Your task to perform on an android device: Show the shopping cart on bestbuy.com. Add "usb-c" to the cart on bestbuy.com Image 0: 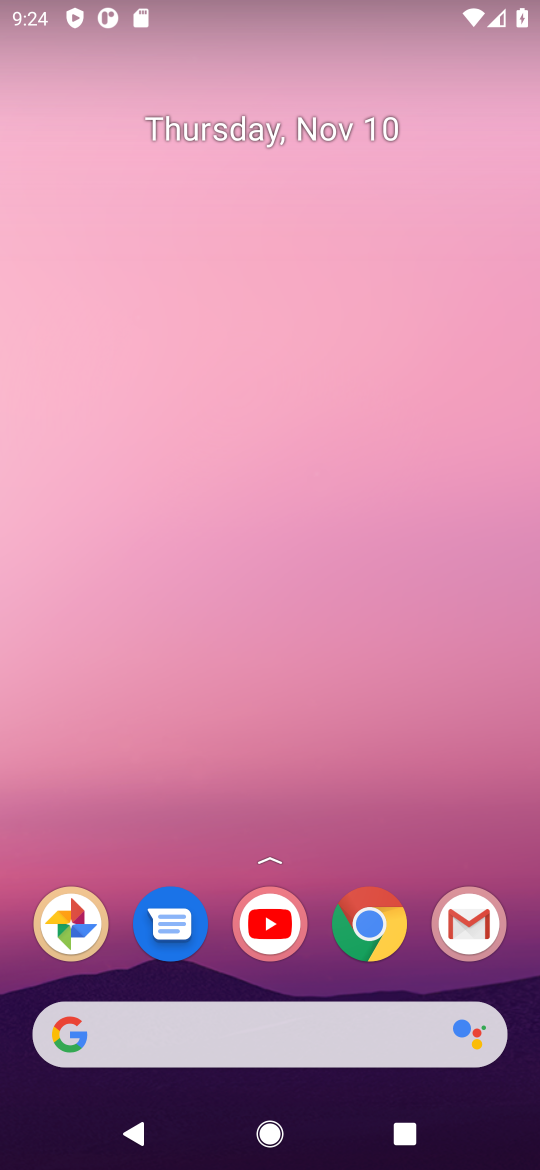
Step 0: click (377, 929)
Your task to perform on an android device: Show the shopping cart on bestbuy.com. Add "usb-c" to the cart on bestbuy.com Image 1: 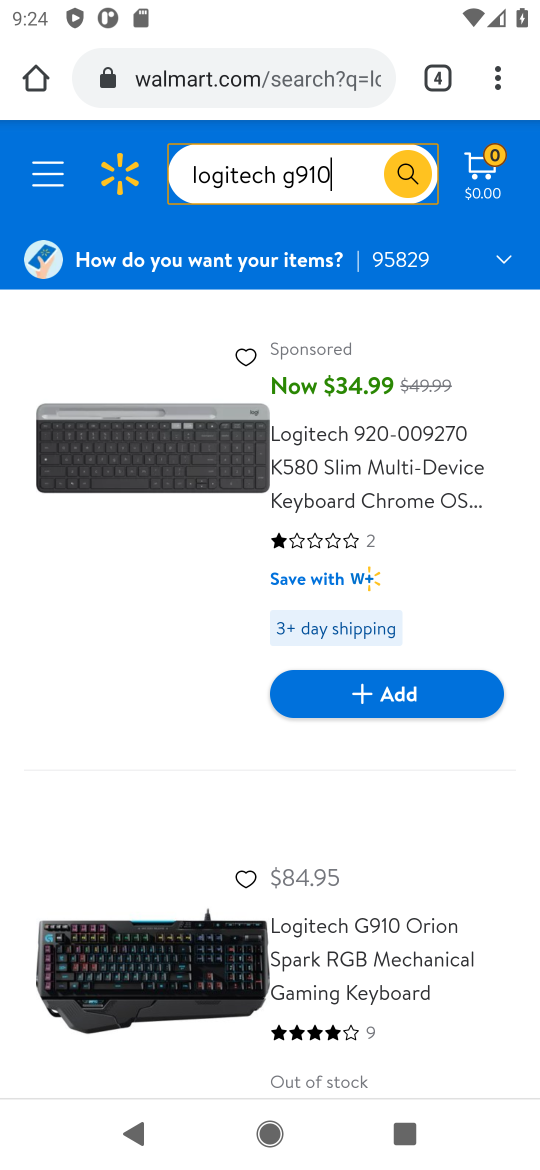
Step 1: click (208, 90)
Your task to perform on an android device: Show the shopping cart on bestbuy.com. Add "usb-c" to the cart on bestbuy.com Image 2: 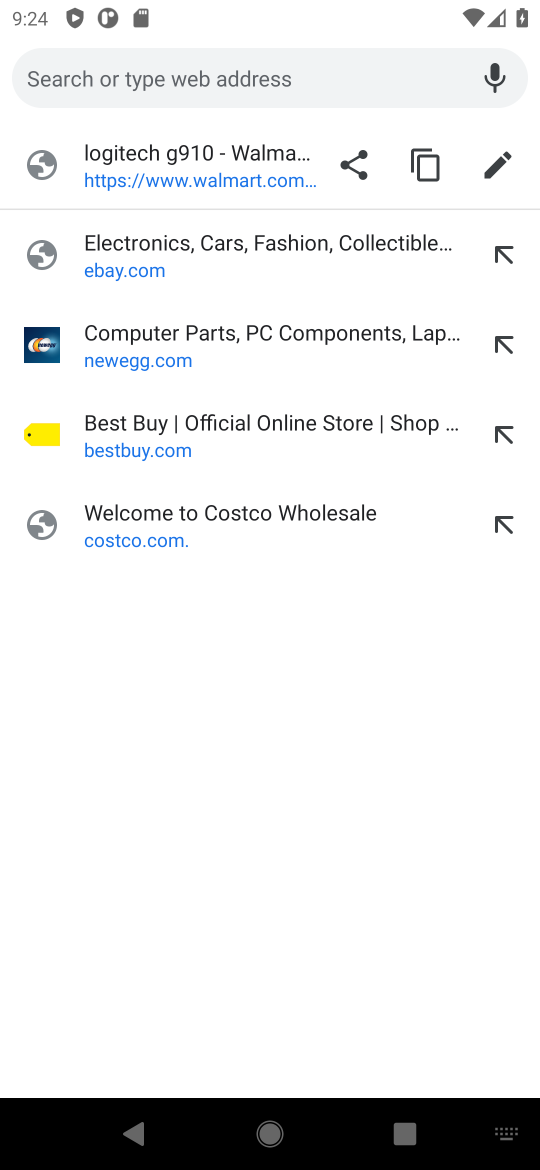
Step 2: click (122, 424)
Your task to perform on an android device: Show the shopping cart on bestbuy.com. Add "usb-c" to the cart on bestbuy.com Image 3: 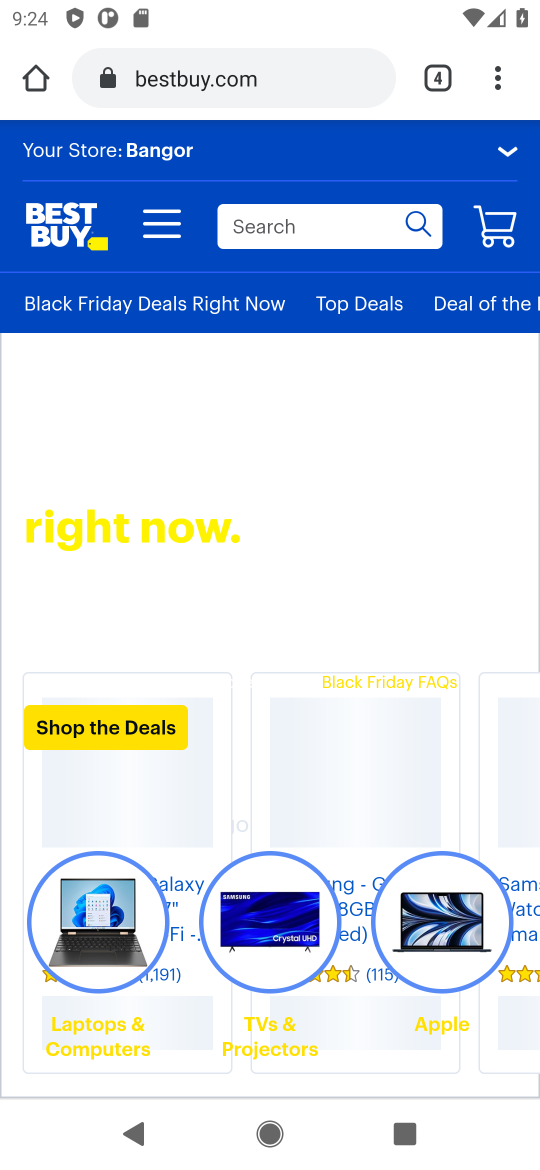
Step 3: click (495, 216)
Your task to perform on an android device: Show the shopping cart on bestbuy.com. Add "usb-c" to the cart on bestbuy.com Image 4: 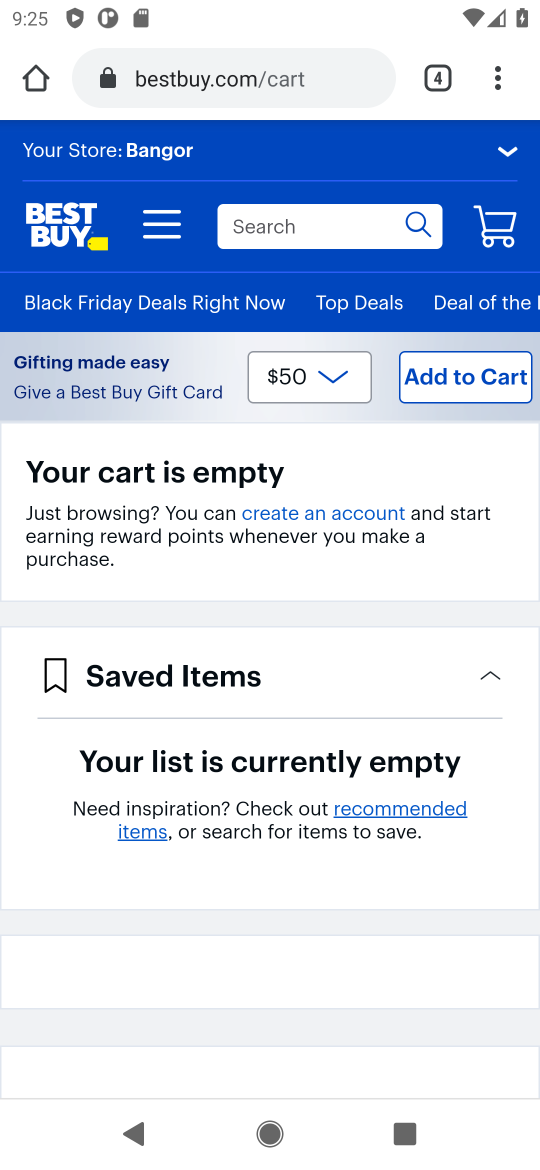
Step 4: click (284, 224)
Your task to perform on an android device: Show the shopping cart on bestbuy.com. Add "usb-c" to the cart on bestbuy.com Image 5: 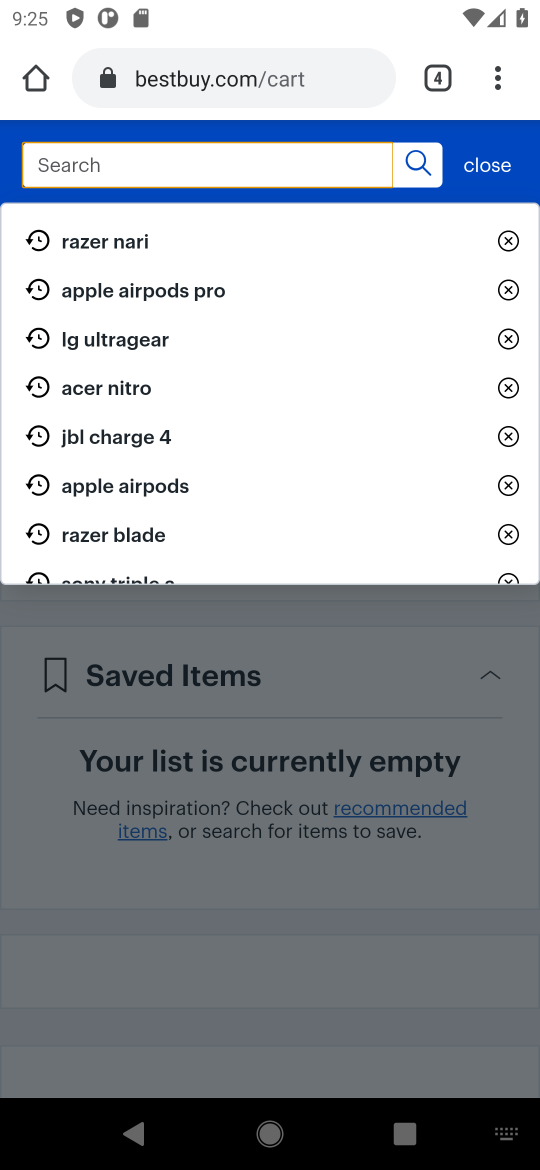
Step 5: type "usb-c"
Your task to perform on an android device: Show the shopping cart on bestbuy.com. Add "usb-c" to the cart on bestbuy.com Image 6: 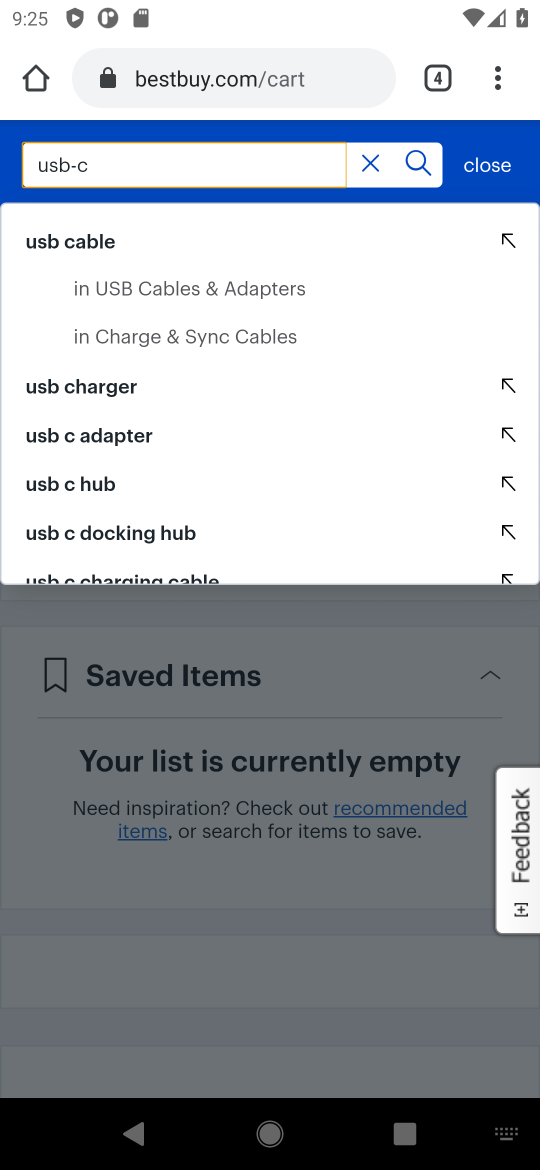
Step 6: click (420, 161)
Your task to perform on an android device: Show the shopping cart on bestbuy.com. Add "usb-c" to the cart on bestbuy.com Image 7: 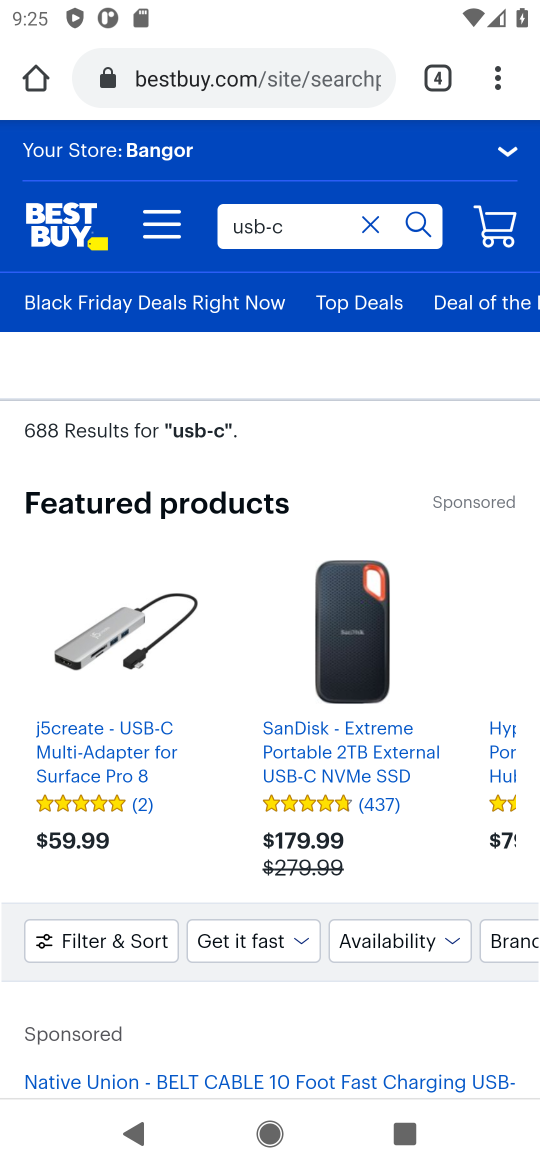
Step 7: drag from (237, 742) to (234, 363)
Your task to perform on an android device: Show the shopping cart on bestbuy.com. Add "usb-c" to the cart on bestbuy.com Image 8: 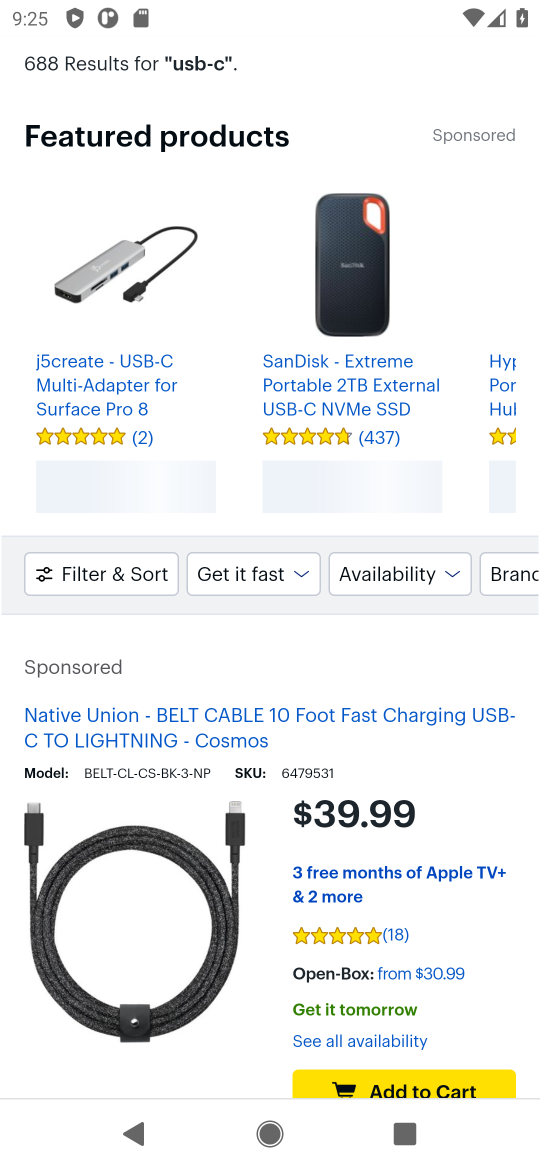
Step 8: drag from (185, 739) to (174, 456)
Your task to perform on an android device: Show the shopping cart on bestbuy.com. Add "usb-c" to the cart on bestbuy.com Image 9: 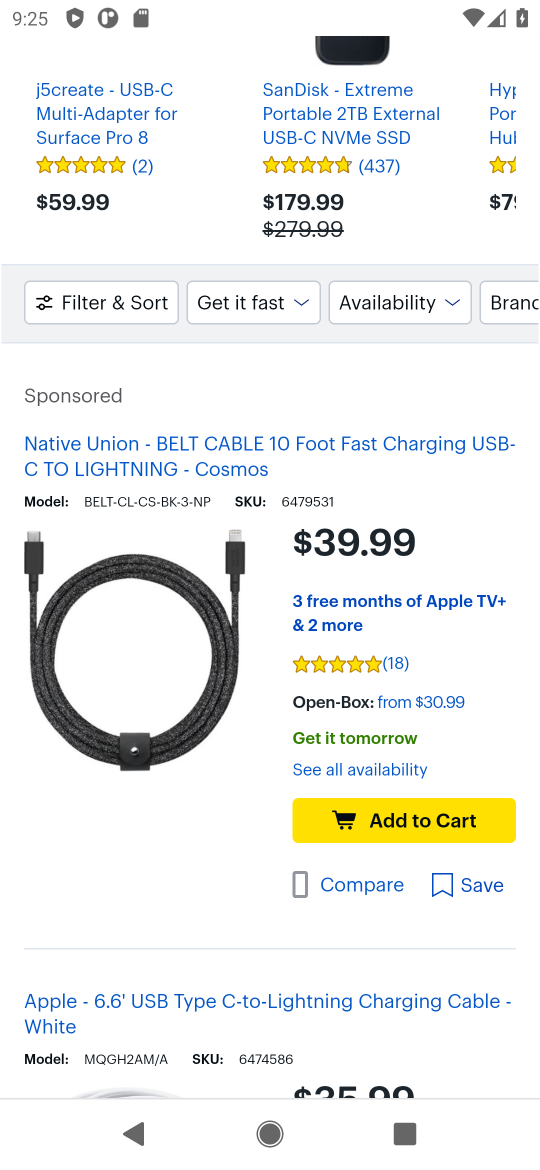
Step 9: click (179, 761)
Your task to perform on an android device: Show the shopping cart on bestbuy.com. Add "usb-c" to the cart on bestbuy.com Image 10: 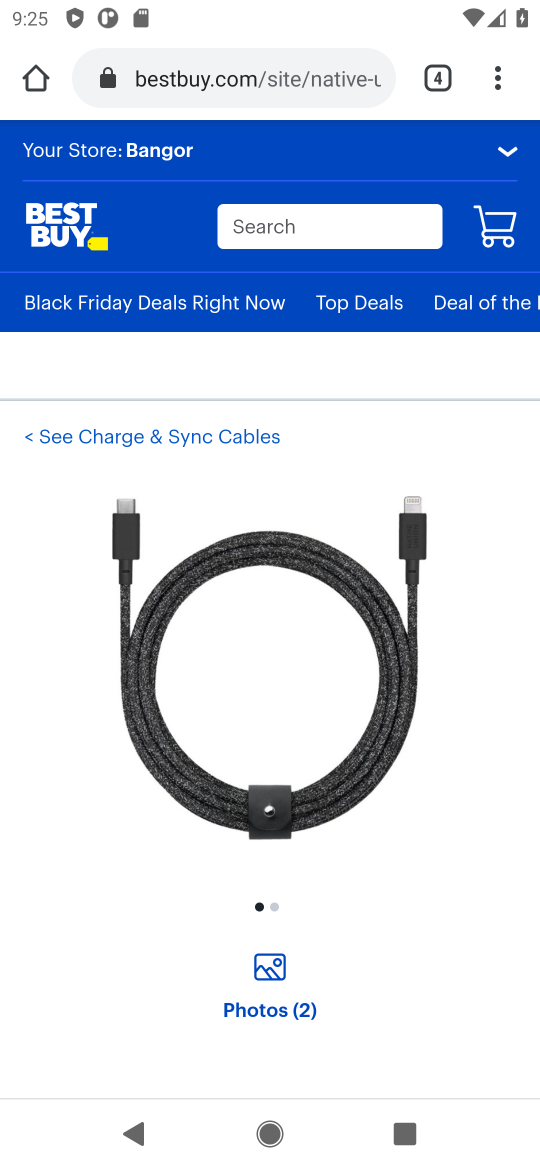
Step 10: drag from (280, 835) to (282, 359)
Your task to perform on an android device: Show the shopping cart on bestbuy.com. Add "usb-c" to the cart on bestbuy.com Image 11: 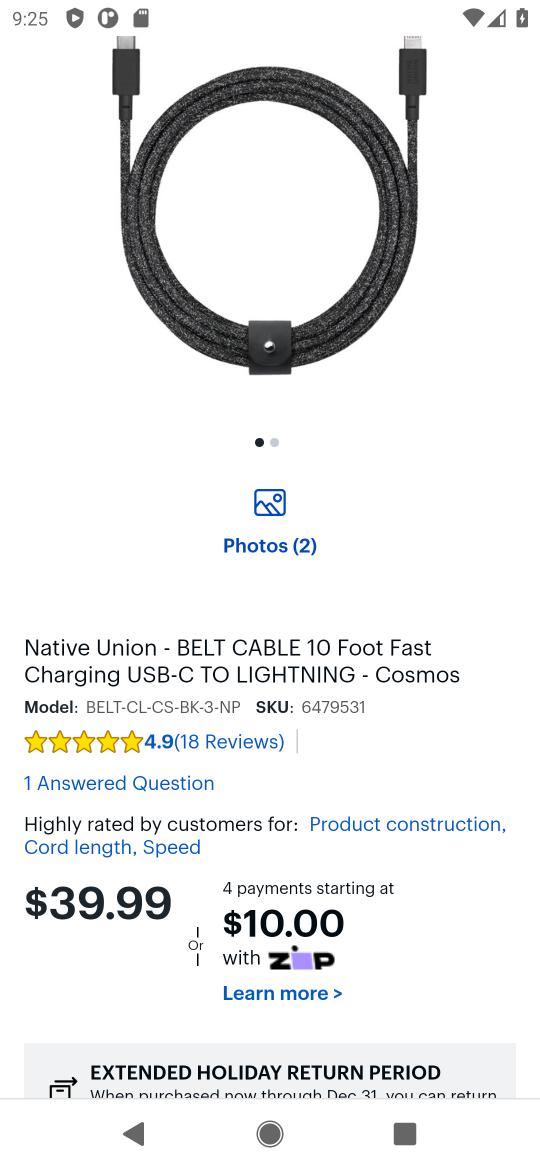
Step 11: drag from (258, 843) to (232, 416)
Your task to perform on an android device: Show the shopping cart on bestbuy.com. Add "usb-c" to the cart on bestbuy.com Image 12: 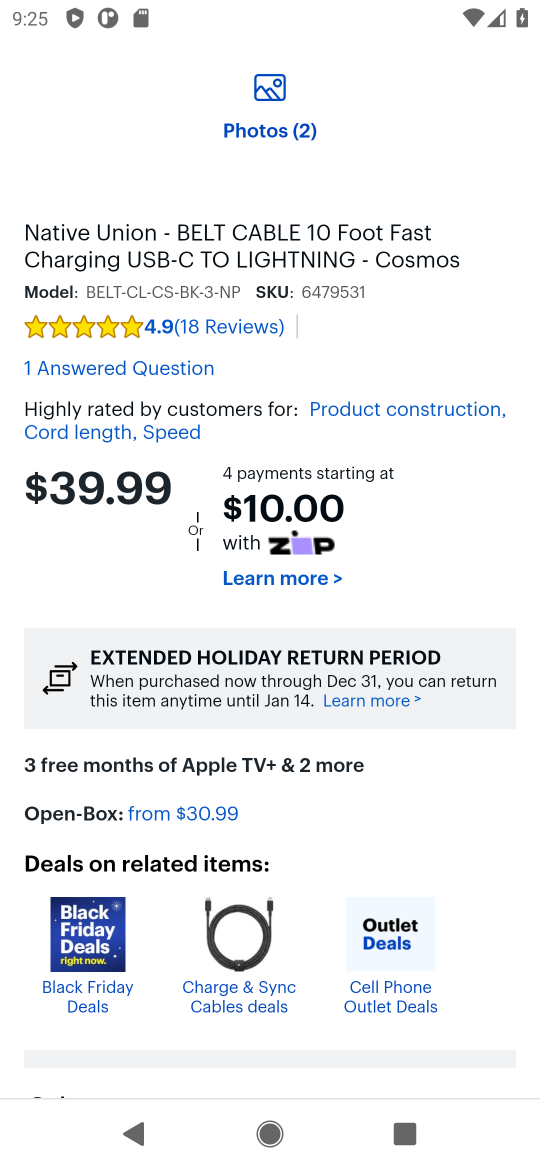
Step 12: drag from (280, 835) to (265, 424)
Your task to perform on an android device: Show the shopping cart on bestbuy.com. Add "usb-c" to the cart on bestbuy.com Image 13: 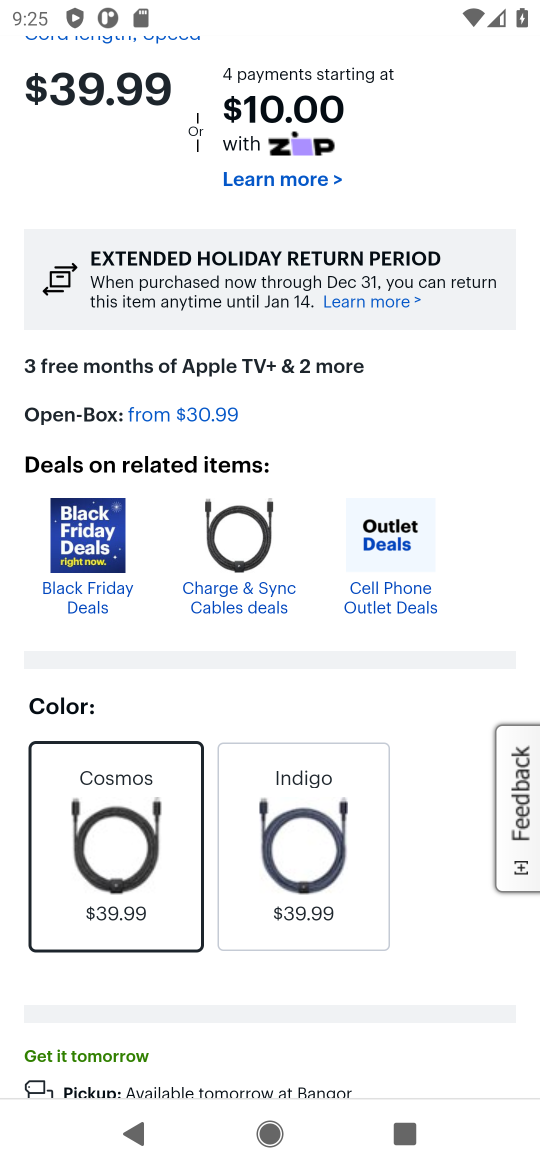
Step 13: drag from (291, 826) to (267, 353)
Your task to perform on an android device: Show the shopping cart on bestbuy.com. Add "usb-c" to the cart on bestbuy.com Image 14: 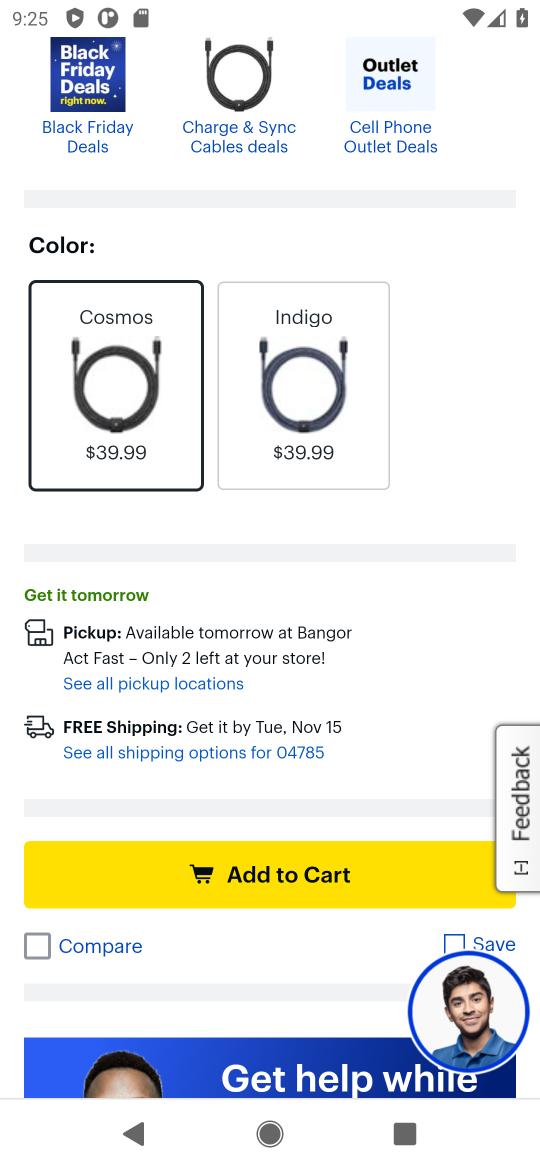
Step 14: click (260, 868)
Your task to perform on an android device: Show the shopping cart on bestbuy.com. Add "usb-c" to the cart on bestbuy.com Image 15: 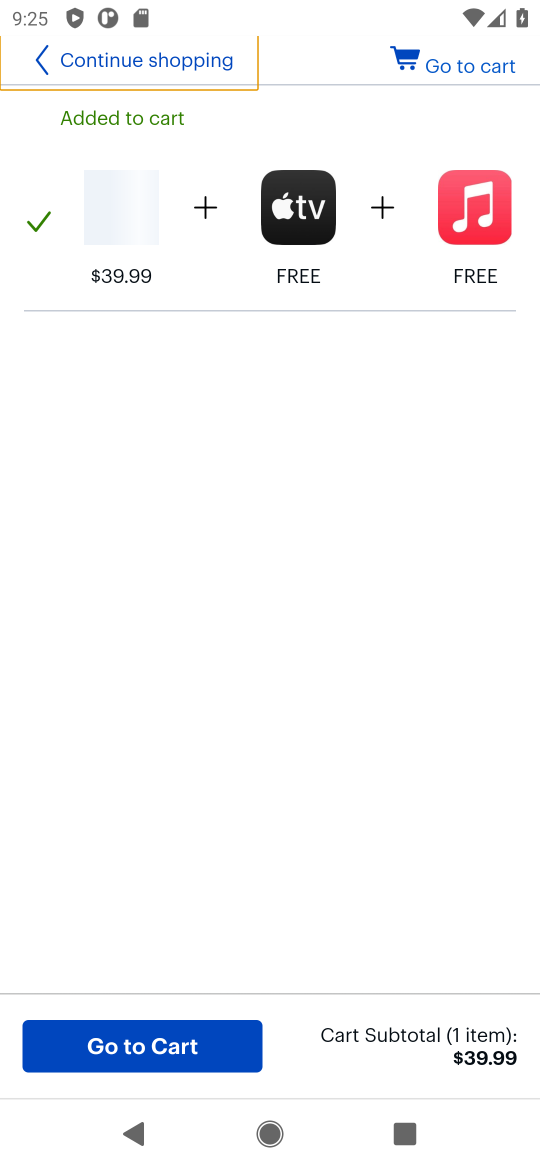
Step 15: task complete